Your task to perform on an android device: Open Google Maps and go to "Timeline" Image 0: 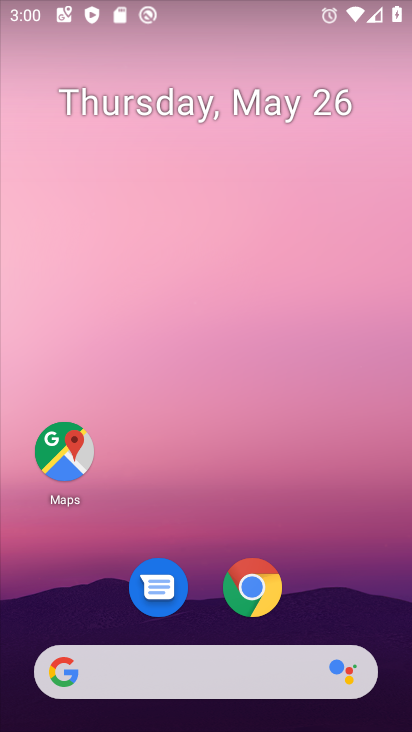
Step 0: drag from (373, 592) to (365, 67)
Your task to perform on an android device: Open Google Maps and go to "Timeline" Image 1: 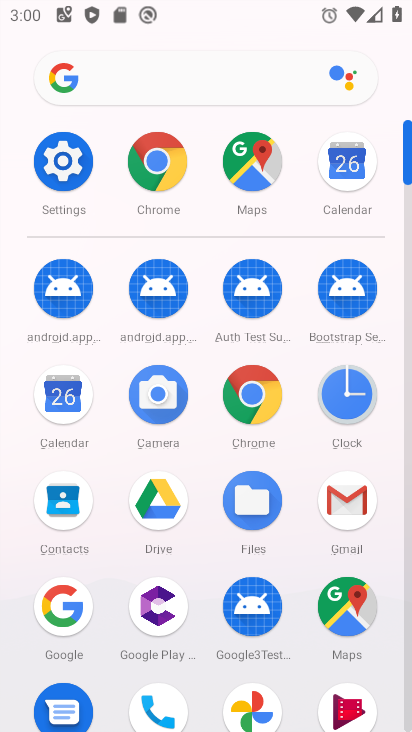
Step 1: click (260, 178)
Your task to perform on an android device: Open Google Maps and go to "Timeline" Image 2: 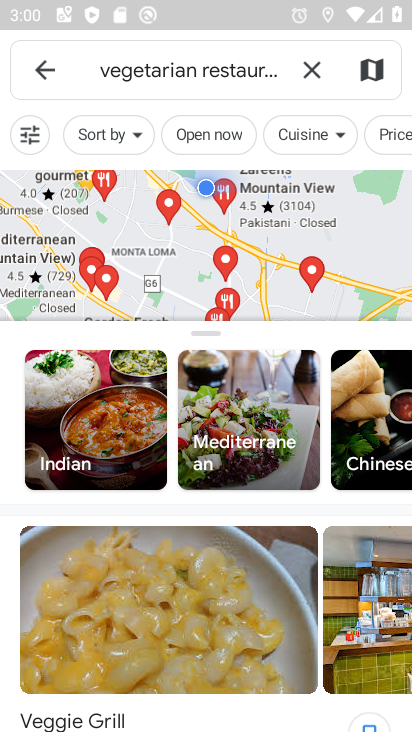
Step 2: press back button
Your task to perform on an android device: Open Google Maps and go to "Timeline" Image 3: 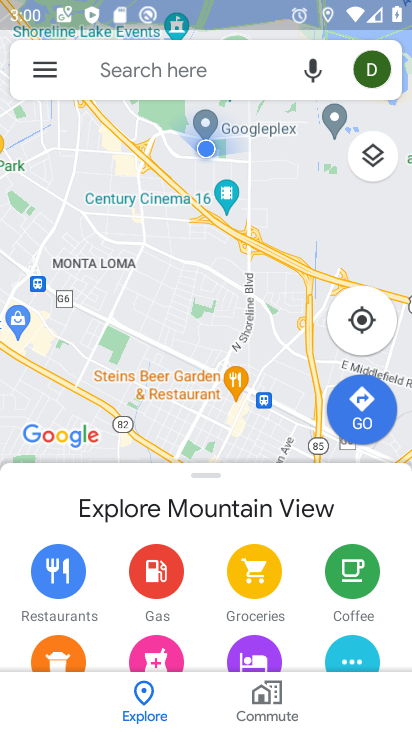
Step 3: click (44, 75)
Your task to perform on an android device: Open Google Maps and go to "Timeline" Image 4: 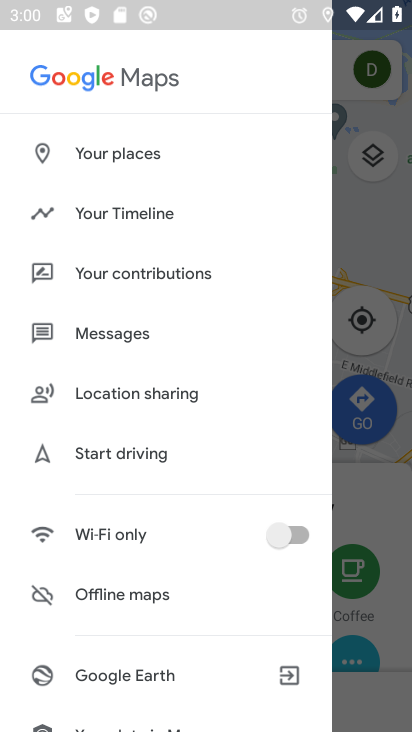
Step 4: click (165, 221)
Your task to perform on an android device: Open Google Maps and go to "Timeline" Image 5: 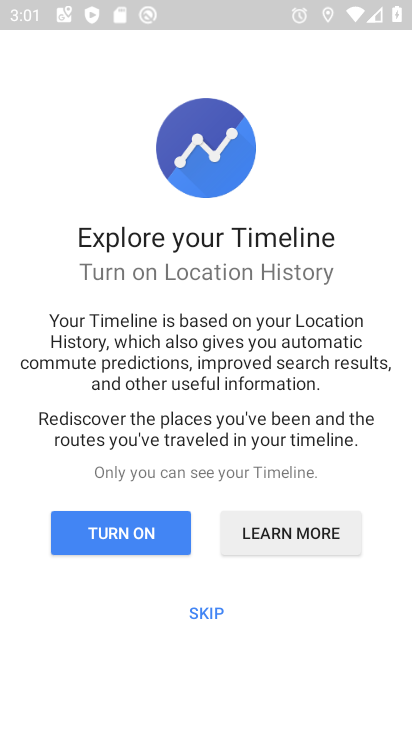
Step 5: task complete